Your task to perform on an android device: turn on airplane mode Image 0: 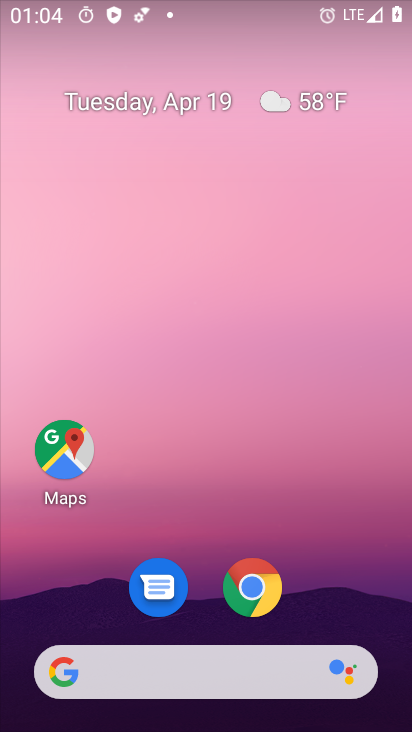
Step 0: drag from (354, 538) to (353, 139)
Your task to perform on an android device: turn on airplane mode Image 1: 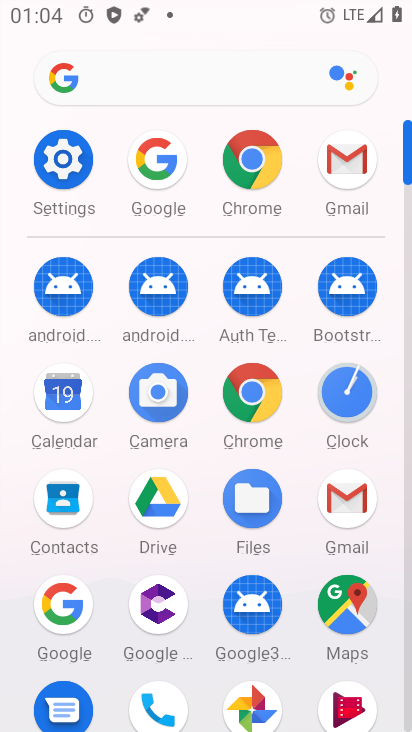
Step 1: click (51, 167)
Your task to perform on an android device: turn on airplane mode Image 2: 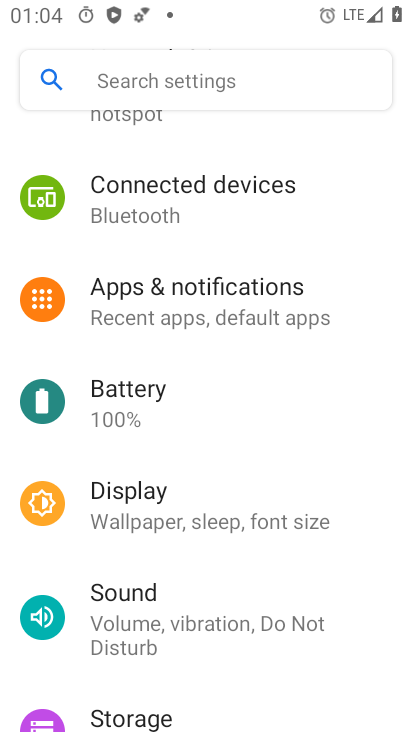
Step 2: drag from (295, 247) to (315, 645)
Your task to perform on an android device: turn on airplane mode Image 3: 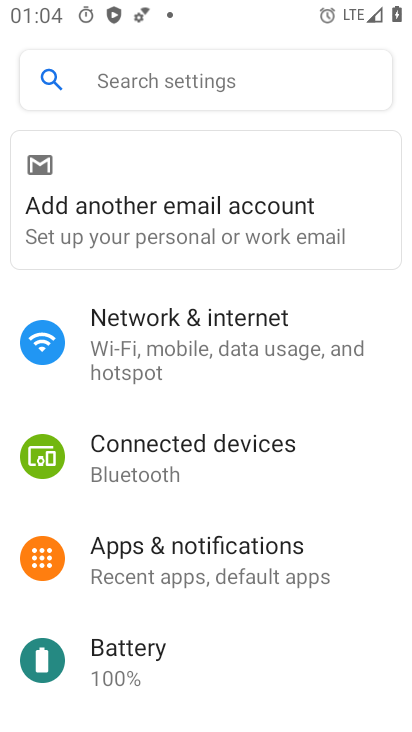
Step 3: click (237, 344)
Your task to perform on an android device: turn on airplane mode Image 4: 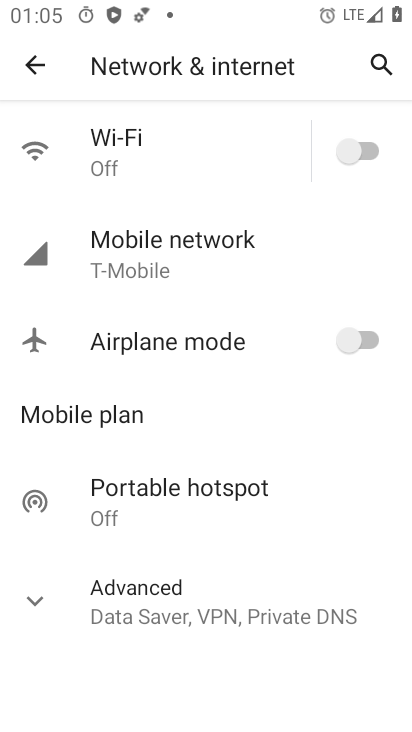
Step 4: click (373, 336)
Your task to perform on an android device: turn on airplane mode Image 5: 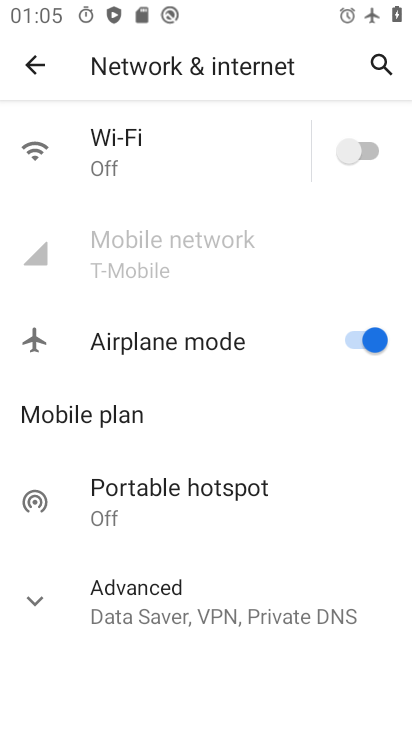
Step 5: task complete